Your task to perform on an android device: Search for pizza restaurants on Maps Image 0: 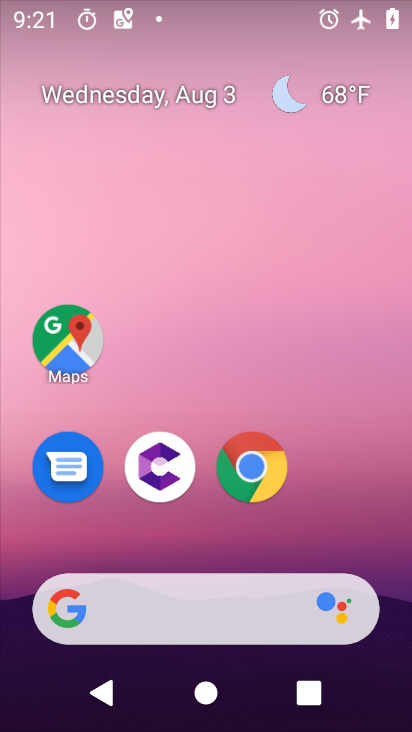
Step 0: drag from (377, 498) to (296, 0)
Your task to perform on an android device: Search for pizza restaurants on Maps Image 1: 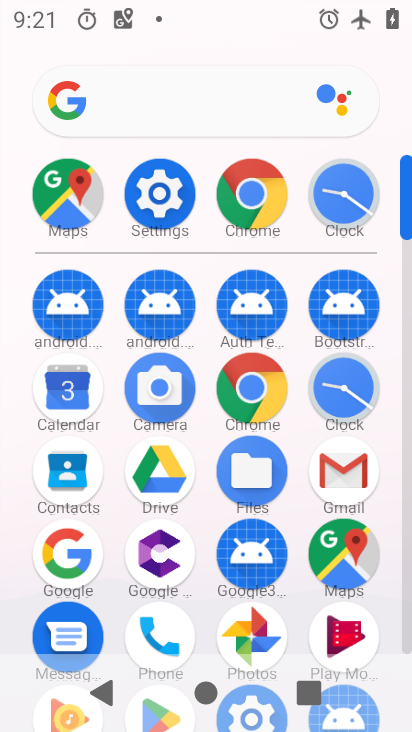
Step 1: click (338, 547)
Your task to perform on an android device: Search for pizza restaurants on Maps Image 2: 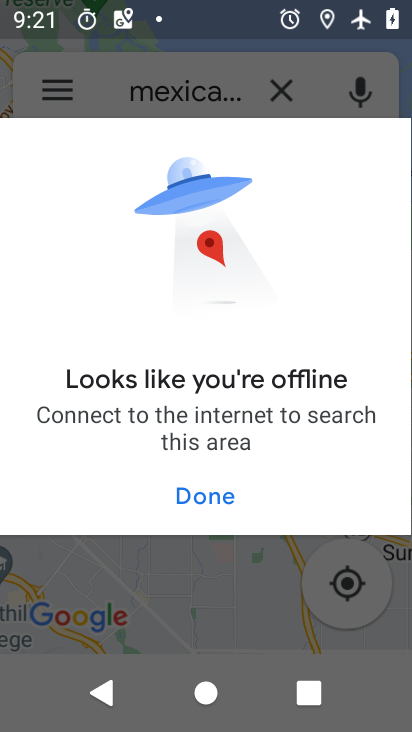
Step 2: click (215, 493)
Your task to perform on an android device: Search for pizza restaurants on Maps Image 3: 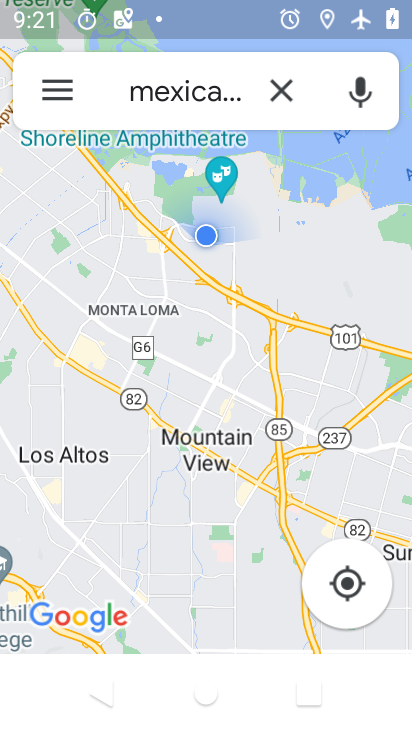
Step 3: click (217, 91)
Your task to perform on an android device: Search for pizza restaurants on Maps Image 4: 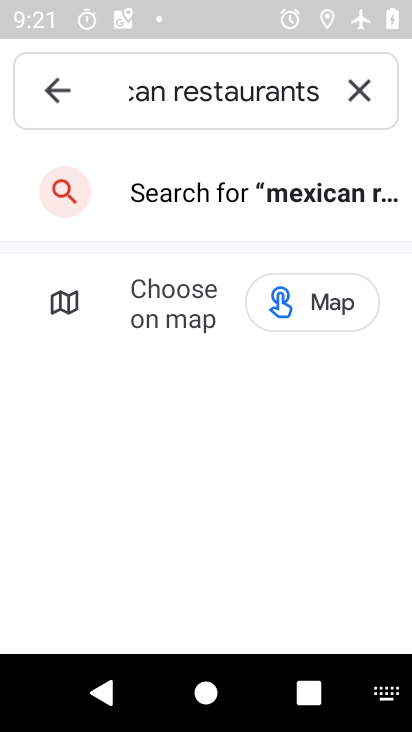
Step 4: click (363, 90)
Your task to perform on an android device: Search for pizza restaurants on Maps Image 5: 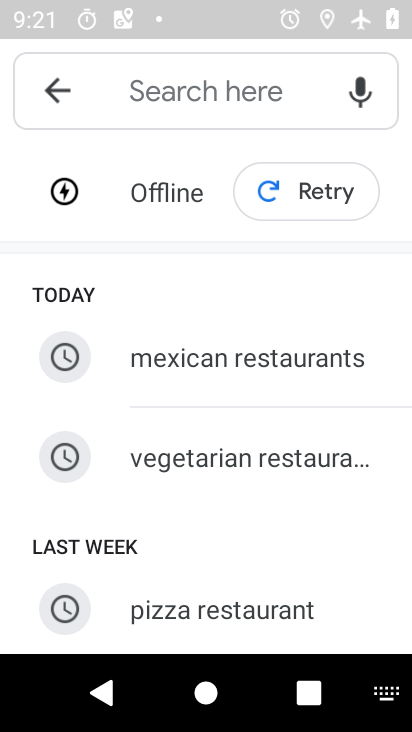
Step 5: type "pizza restaurants"
Your task to perform on an android device: Search for pizza restaurants on Maps Image 6: 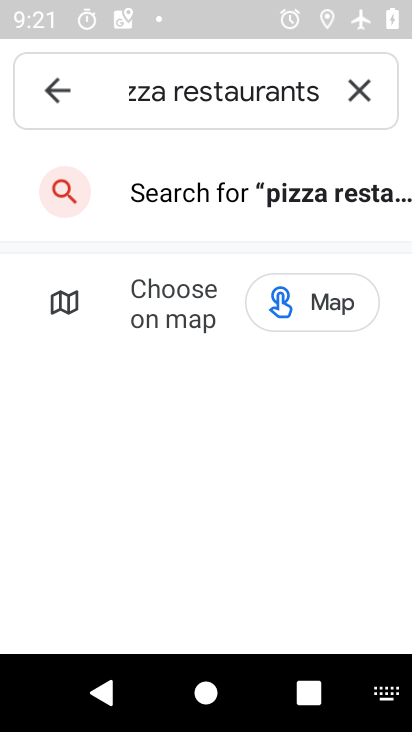
Step 6: press enter
Your task to perform on an android device: Search for pizza restaurants on Maps Image 7: 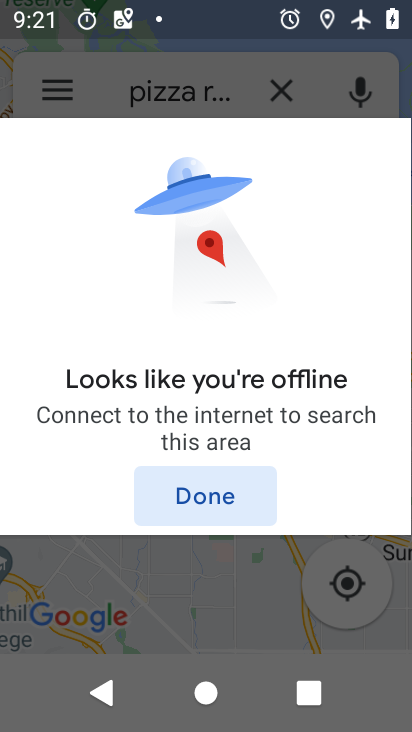
Step 7: task complete